Your task to perform on an android device: turn pop-ups on in chrome Image 0: 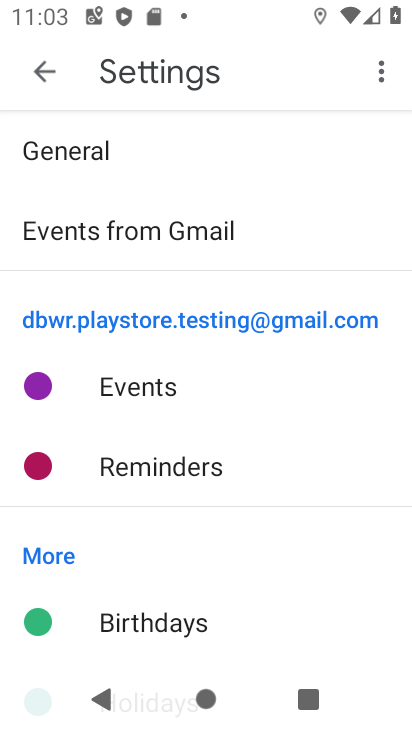
Step 0: press home button
Your task to perform on an android device: turn pop-ups on in chrome Image 1: 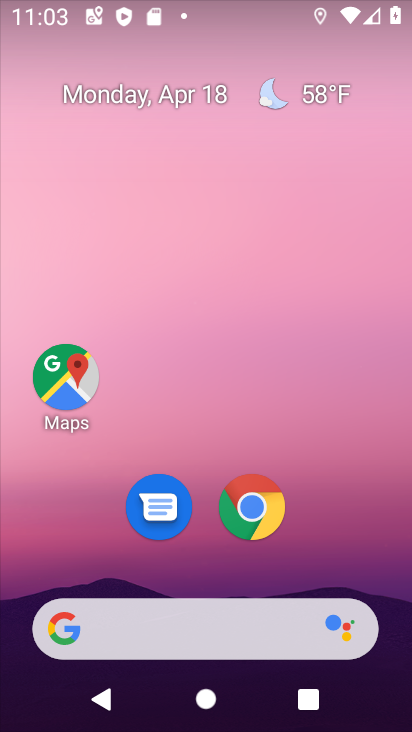
Step 1: click (260, 496)
Your task to perform on an android device: turn pop-ups on in chrome Image 2: 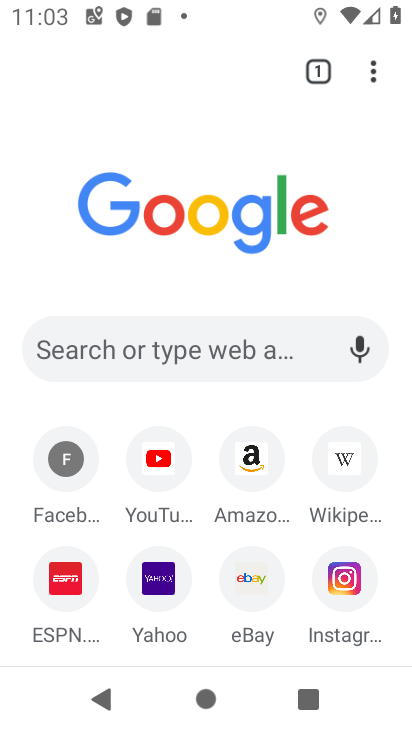
Step 2: click (367, 77)
Your task to perform on an android device: turn pop-ups on in chrome Image 3: 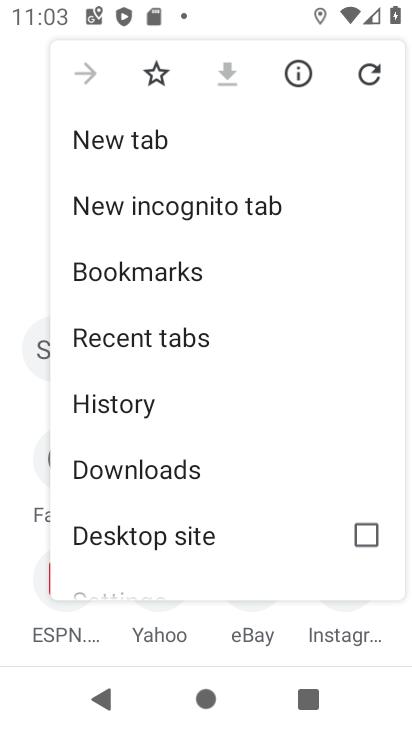
Step 3: drag from (141, 458) to (237, 5)
Your task to perform on an android device: turn pop-ups on in chrome Image 4: 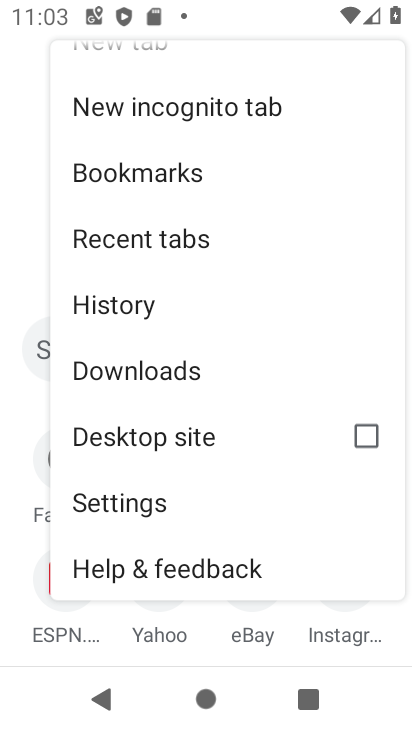
Step 4: click (133, 501)
Your task to perform on an android device: turn pop-ups on in chrome Image 5: 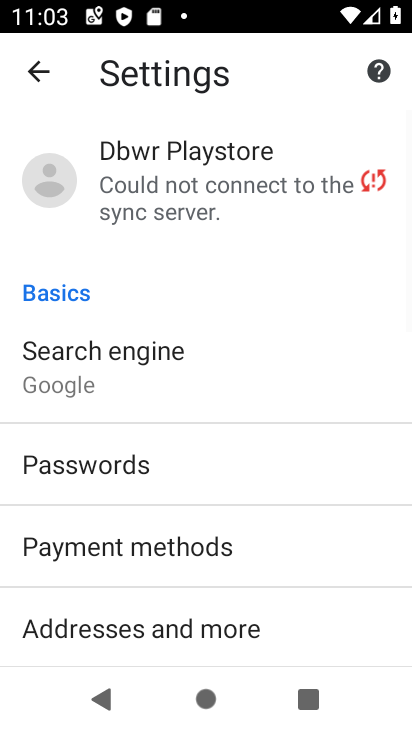
Step 5: drag from (125, 528) to (184, 185)
Your task to perform on an android device: turn pop-ups on in chrome Image 6: 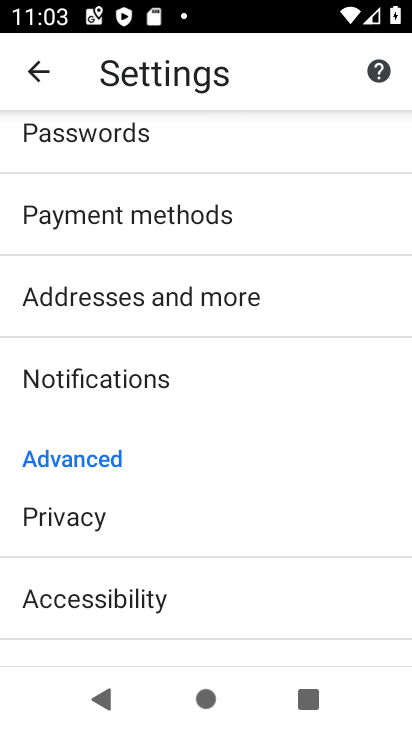
Step 6: drag from (105, 586) to (174, 196)
Your task to perform on an android device: turn pop-ups on in chrome Image 7: 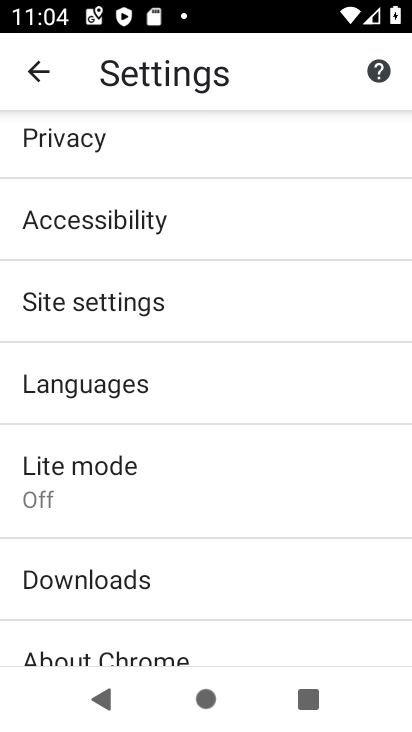
Step 7: click (95, 325)
Your task to perform on an android device: turn pop-ups on in chrome Image 8: 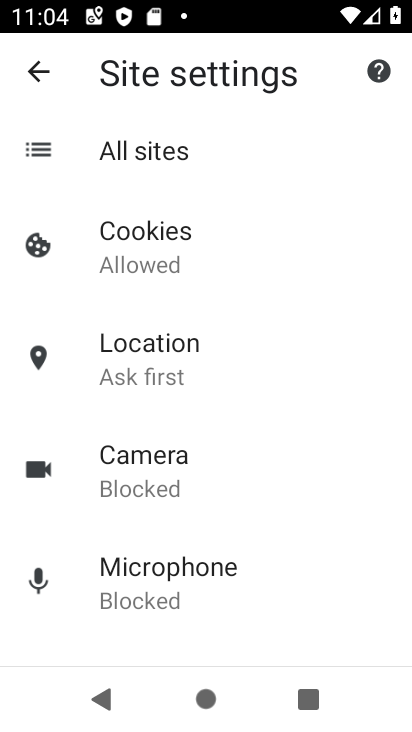
Step 8: drag from (145, 543) to (226, 160)
Your task to perform on an android device: turn pop-ups on in chrome Image 9: 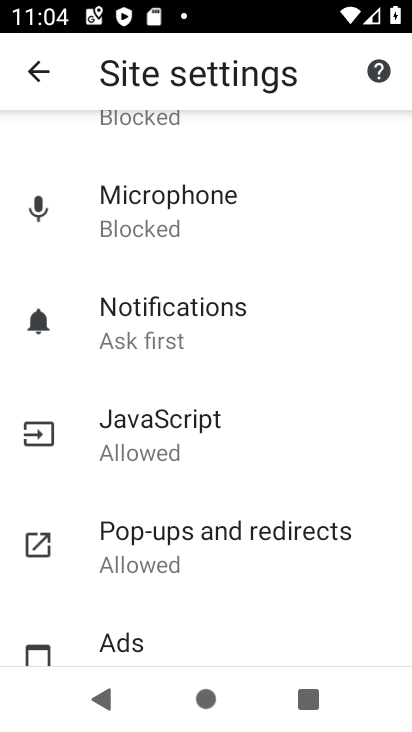
Step 9: click (135, 546)
Your task to perform on an android device: turn pop-ups on in chrome Image 10: 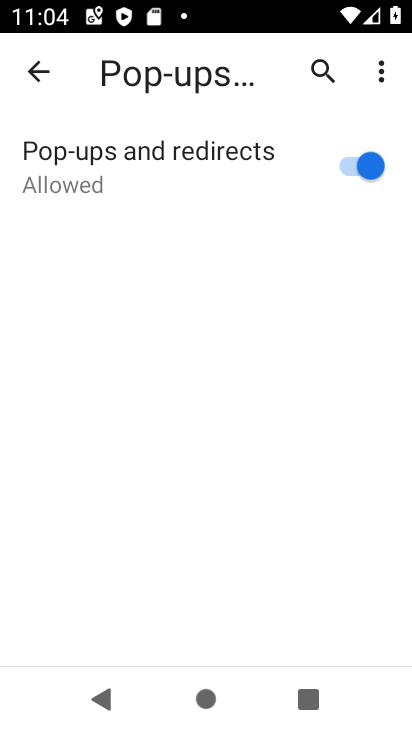
Step 10: task complete